Your task to perform on an android device: toggle notification dots Image 0: 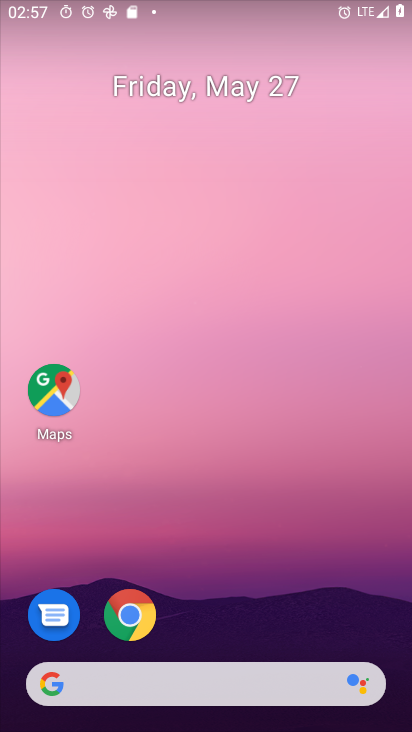
Step 0: drag from (397, 614) to (383, 206)
Your task to perform on an android device: toggle notification dots Image 1: 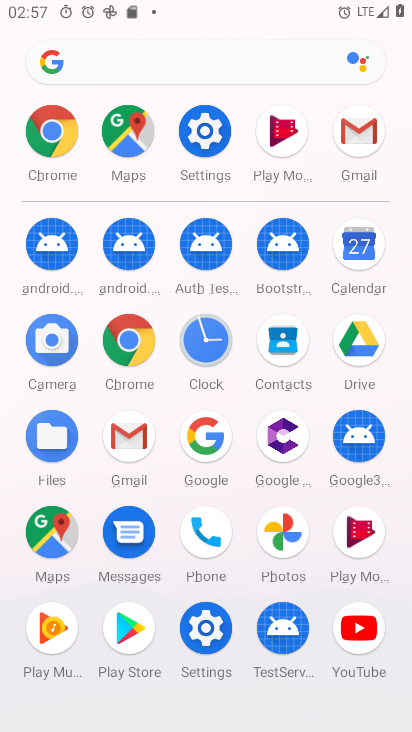
Step 1: click (216, 626)
Your task to perform on an android device: toggle notification dots Image 2: 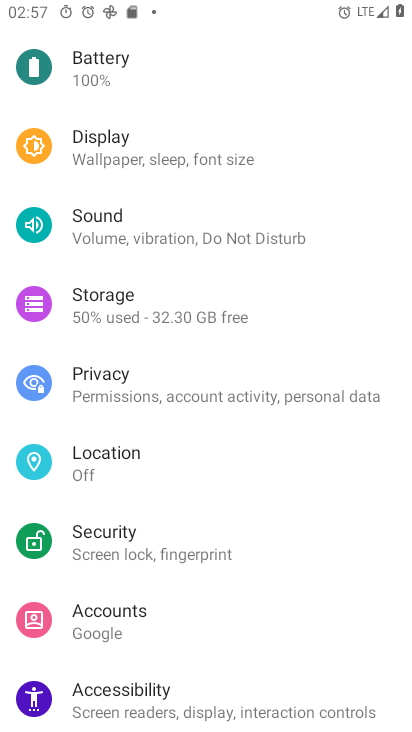
Step 2: drag from (332, 332) to (363, 442)
Your task to perform on an android device: toggle notification dots Image 3: 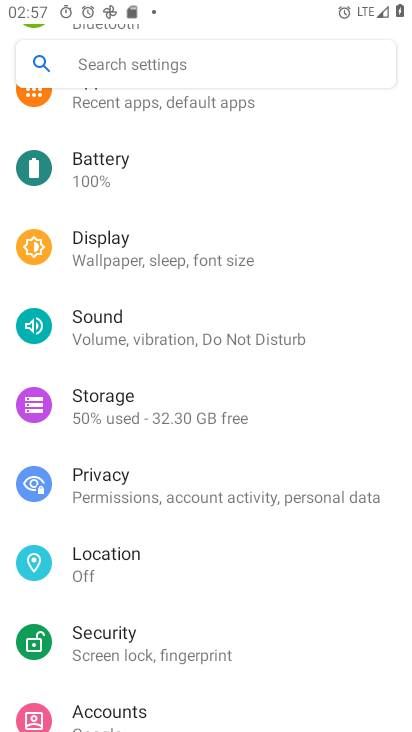
Step 3: drag from (354, 300) to (340, 419)
Your task to perform on an android device: toggle notification dots Image 4: 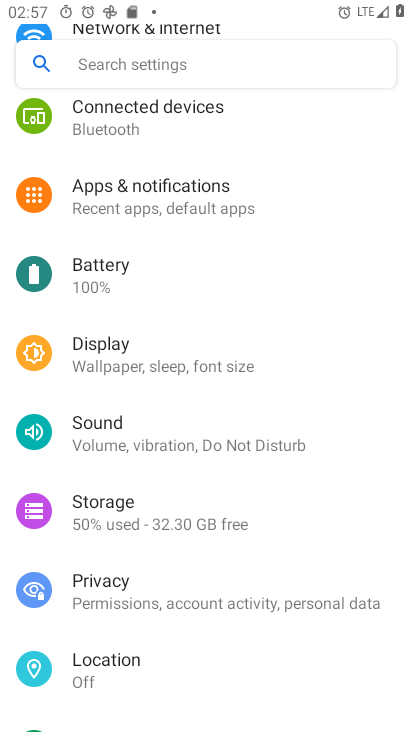
Step 4: drag from (338, 336) to (338, 482)
Your task to perform on an android device: toggle notification dots Image 5: 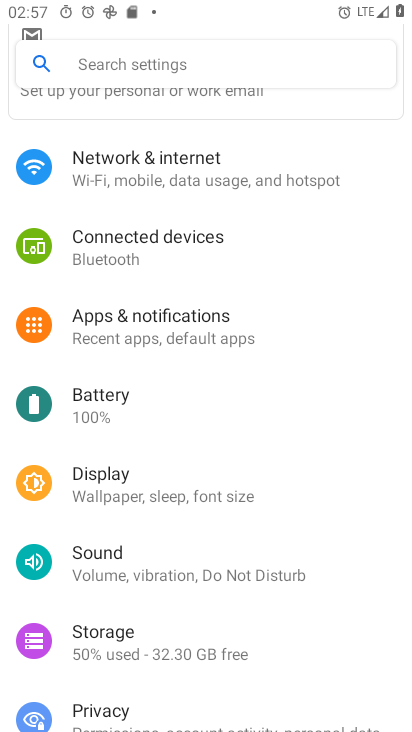
Step 5: drag from (306, 286) to (304, 435)
Your task to perform on an android device: toggle notification dots Image 6: 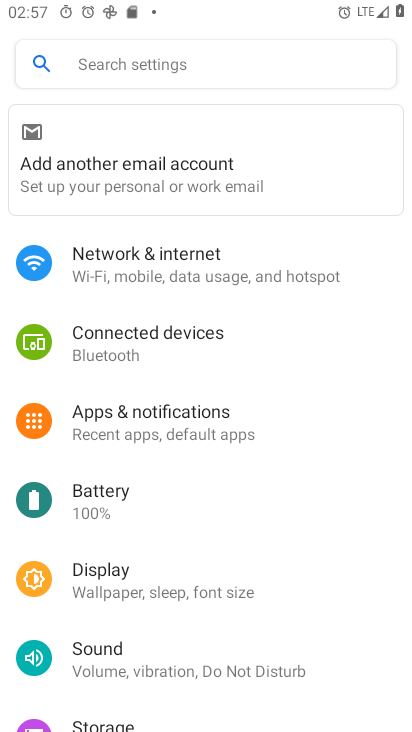
Step 6: click (257, 430)
Your task to perform on an android device: toggle notification dots Image 7: 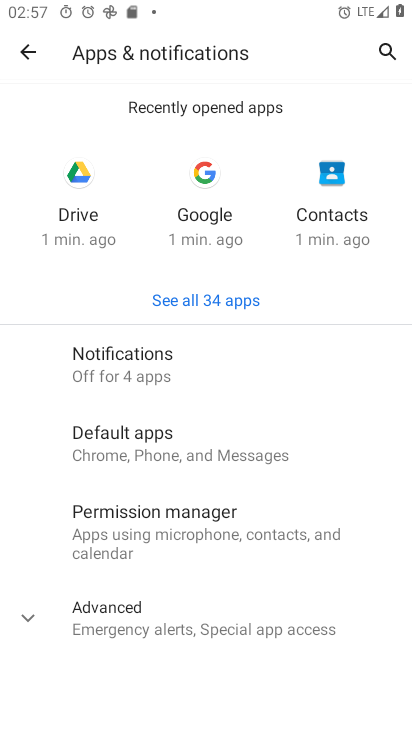
Step 7: click (165, 380)
Your task to perform on an android device: toggle notification dots Image 8: 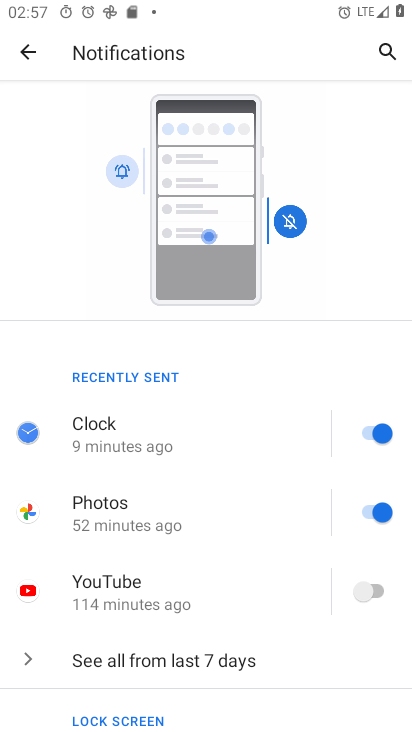
Step 8: drag from (233, 491) to (254, 378)
Your task to perform on an android device: toggle notification dots Image 9: 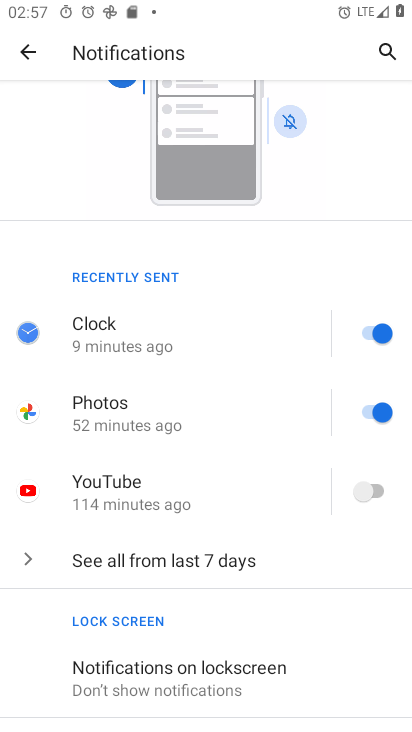
Step 9: drag from (274, 522) to (247, 386)
Your task to perform on an android device: toggle notification dots Image 10: 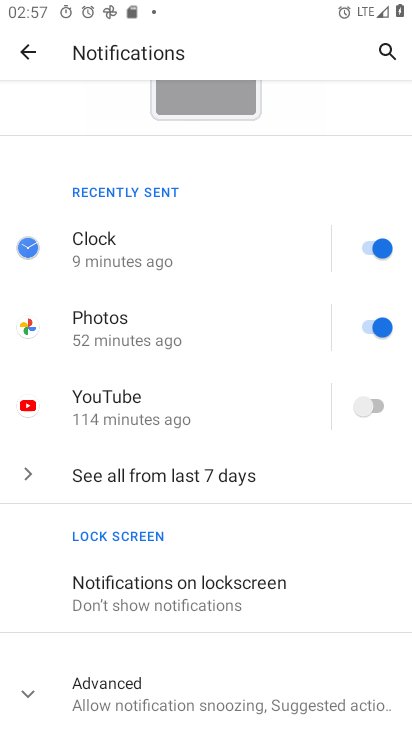
Step 10: click (265, 693)
Your task to perform on an android device: toggle notification dots Image 11: 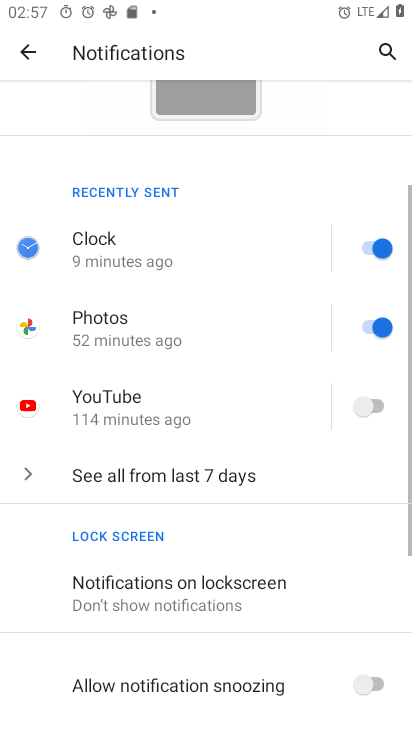
Step 11: drag from (285, 593) to (297, 482)
Your task to perform on an android device: toggle notification dots Image 12: 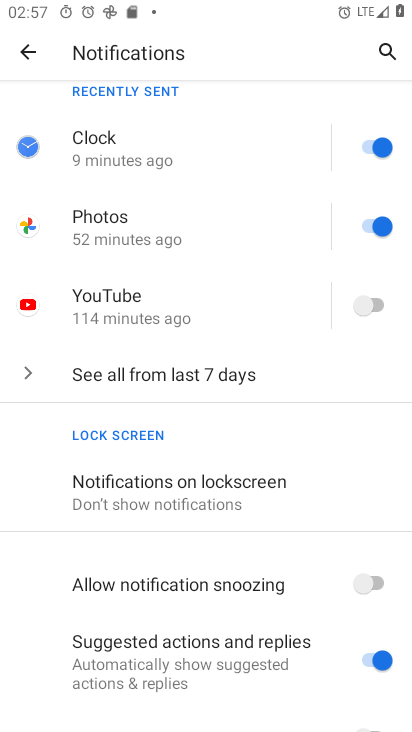
Step 12: drag from (307, 651) to (272, 473)
Your task to perform on an android device: toggle notification dots Image 13: 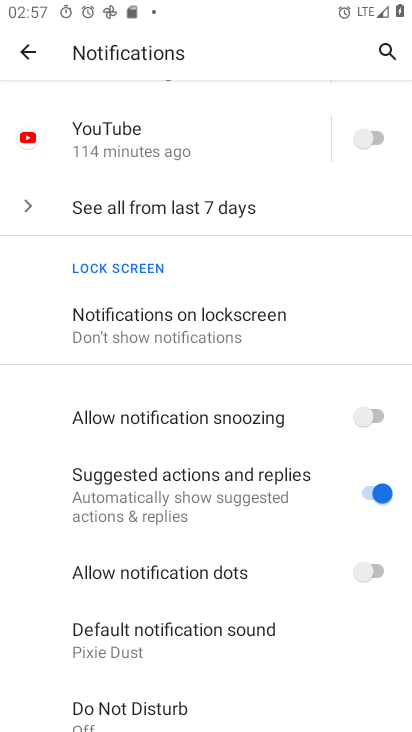
Step 13: click (371, 560)
Your task to perform on an android device: toggle notification dots Image 14: 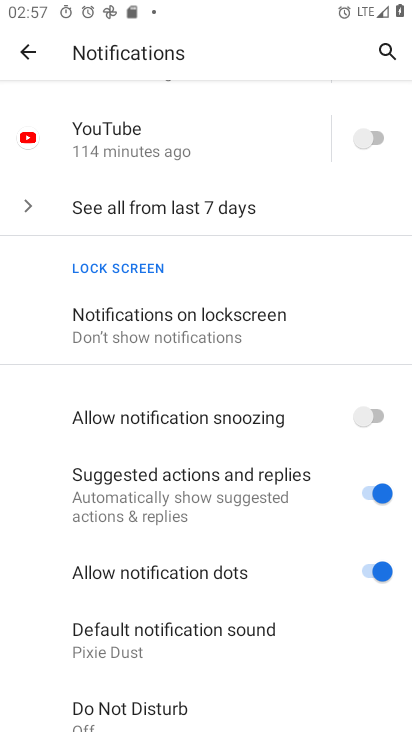
Step 14: task complete